Your task to perform on an android device: Open Maps and search for coffee Image 0: 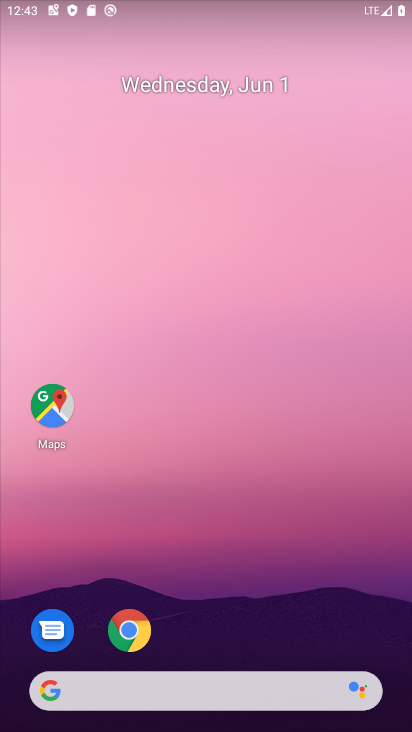
Step 0: click (60, 406)
Your task to perform on an android device: Open Maps and search for coffee Image 1: 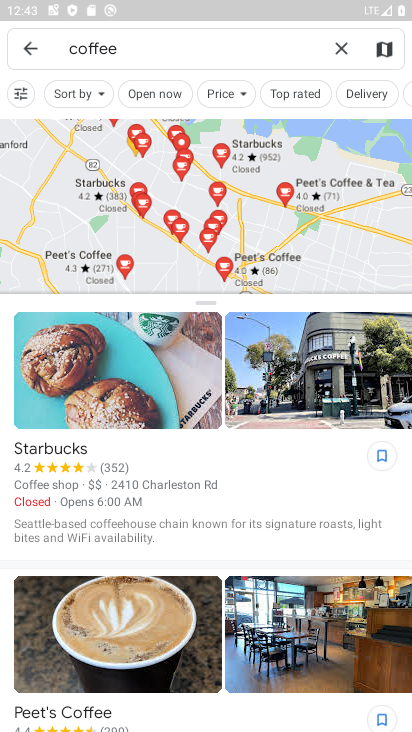
Step 1: click (205, 51)
Your task to perform on an android device: Open Maps and search for coffee Image 2: 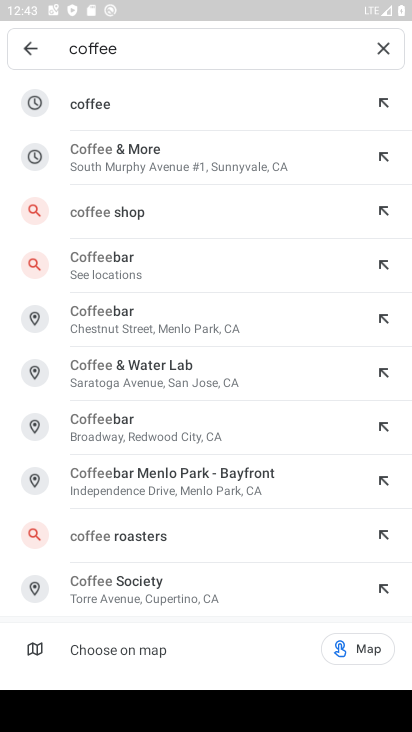
Step 2: click (92, 99)
Your task to perform on an android device: Open Maps and search for coffee Image 3: 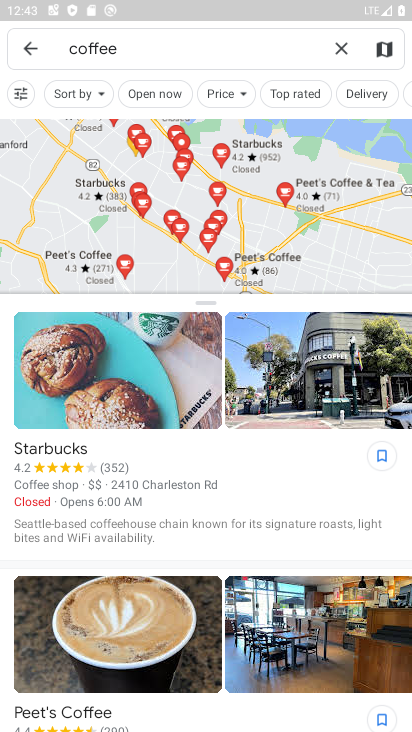
Step 3: task complete